Your task to perform on an android device: show emergency info Image 0: 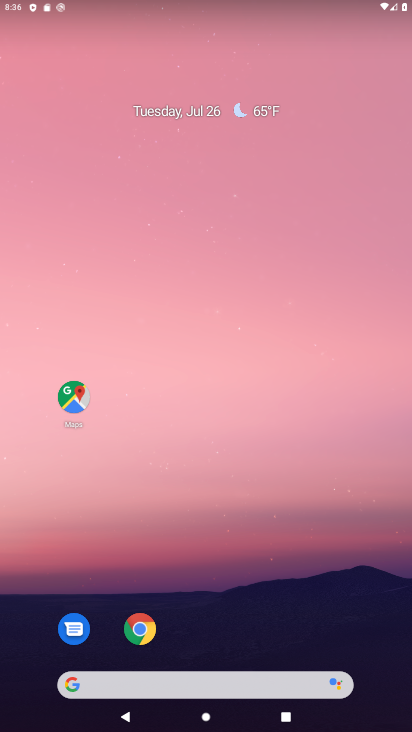
Step 0: drag from (338, 596) to (240, 1)
Your task to perform on an android device: show emergency info Image 1: 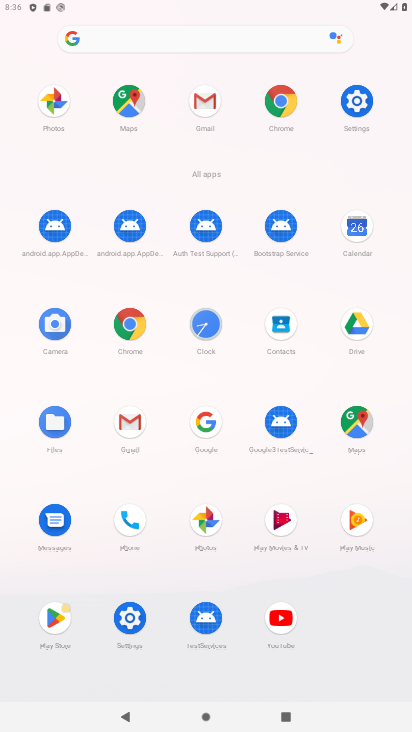
Step 1: click (356, 109)
Your task to perform on an android device: show emergency info Image 2: 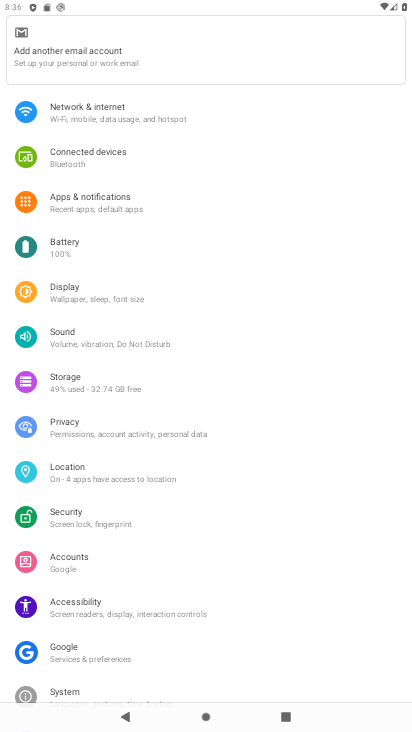
Step 2: drag from (204, 588) to (233, 152)
Your task to perform on an android device: show emergency info Image 3: 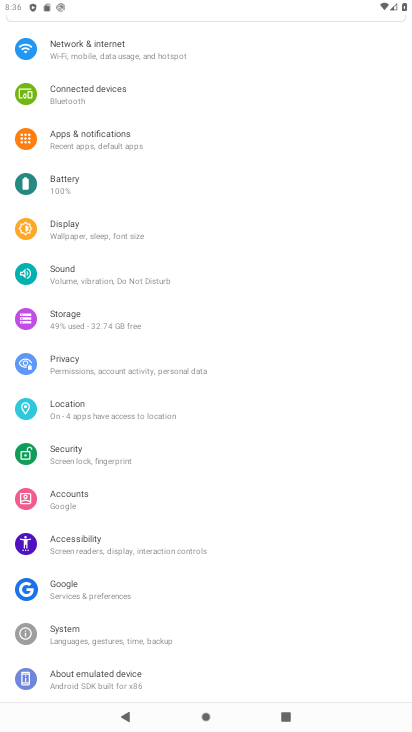
Step 3: click (90, 677)
Your task to perform on an android device: show emergency info Image 4: 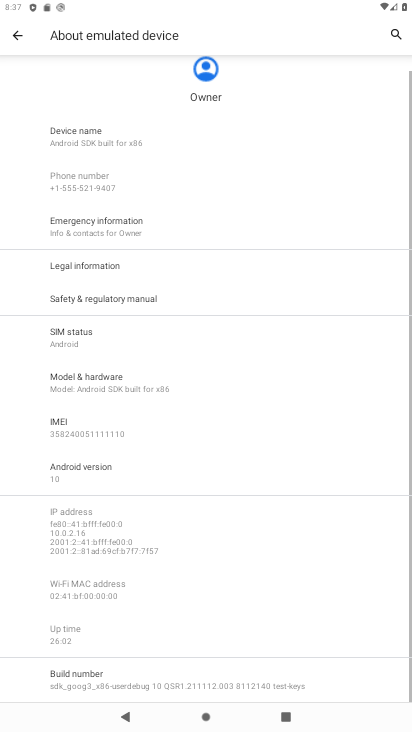
Step 4: click (101, 222)
Your task to perform on an android device: show emergency info Image 5: 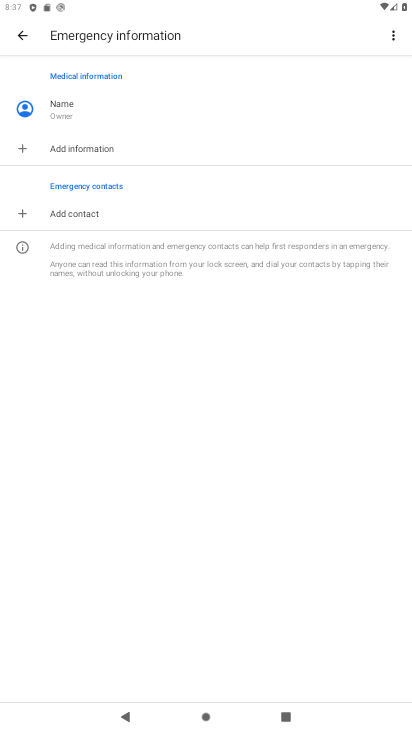
Step 5: task complete